Your task to perform on an android device: check data usage Image 0: 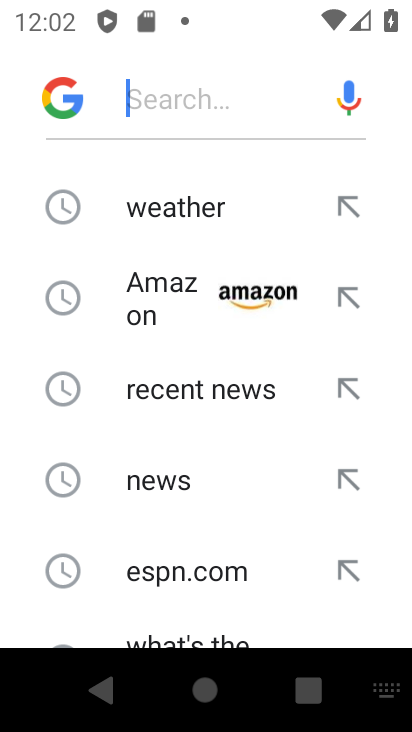
Step 0: press home button
Your task to perform on an android device: check data usage Image 1: 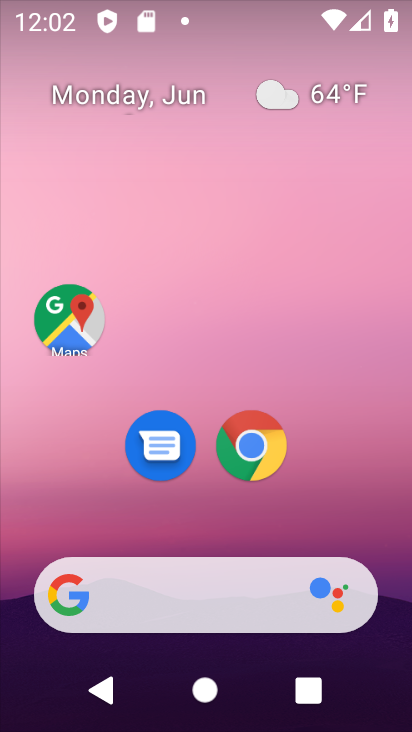
Step 1: drag from (240, 524) to (368, 4)
Your task to perform on an android device: check data usage Image 2: 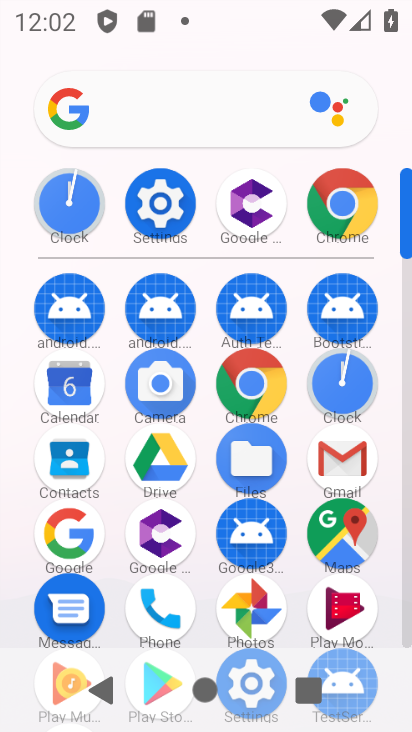
Step 2: click (122, 209)
Your task to perform on an android device: check data usage Image 3: 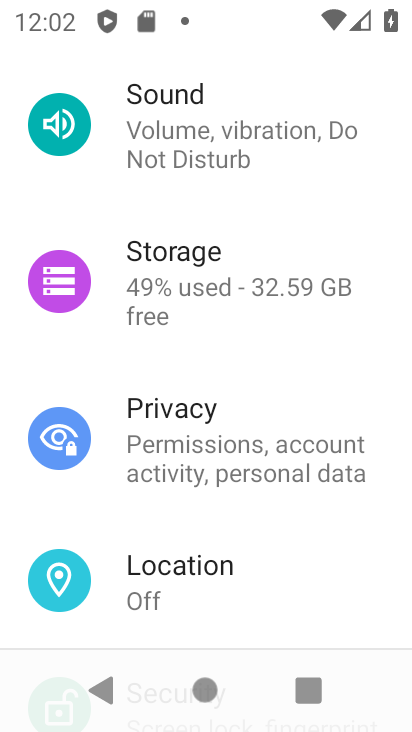
Step 3: drag from (259, 281) to (240, 717)
Your task to perform on an android device: check data usage Image 4: 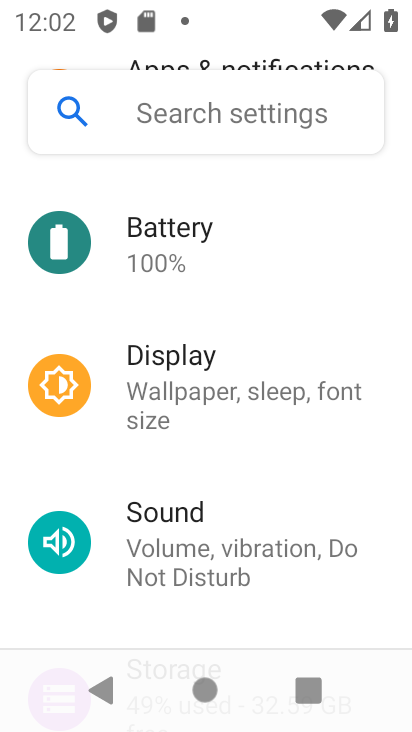
Step 4: drag from (288, 265) to (411, 638)
Your task to perform on an android device: check data usage Image 5: 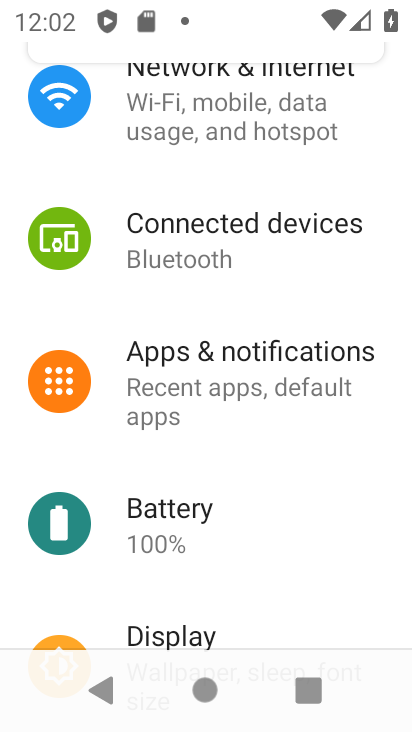
Step 5: drag from (263, 269) to (198, 654)
Your task to perform on an android device: check data usage Image 6: 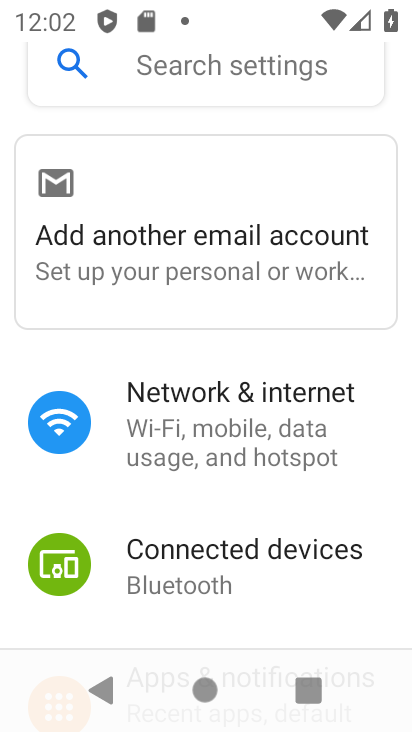
Step 6: click (197, 467)
Your task to perform on an android device: check data usage Image 7: 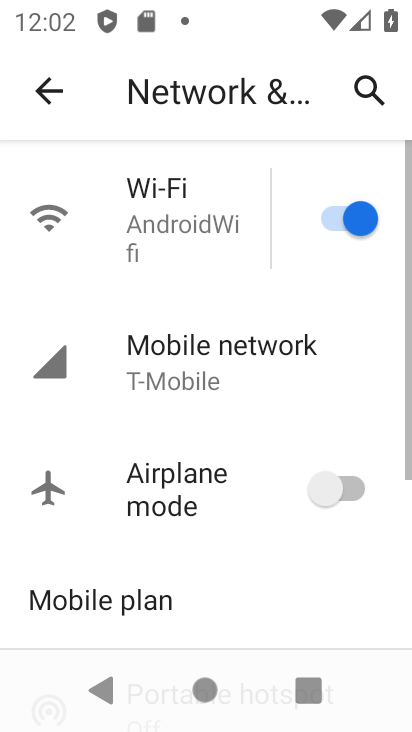
Step 7: drag from (176, 571) to (187, 109)
Your task to perform on an android device: check data usage Image 8: 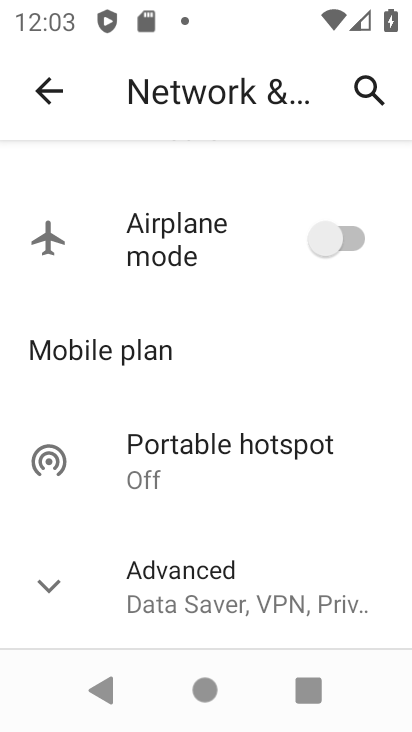
Step 8: click (221, 601)
Your task to perform on an android device: check data usage Image 9: 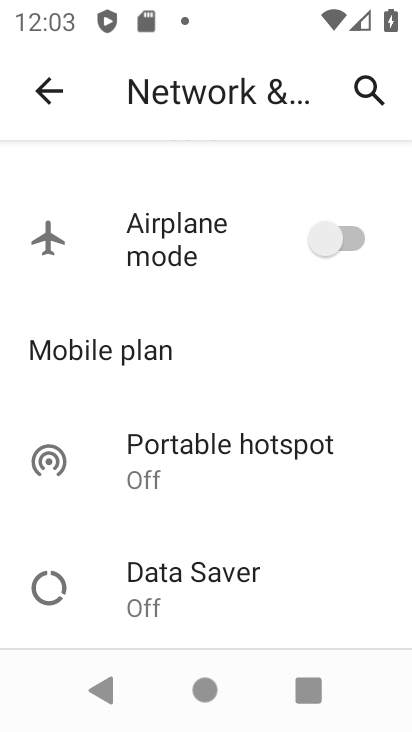
Step 9: task complete